Your task to perform on an android device: Go to Yahoo.com Image 0: 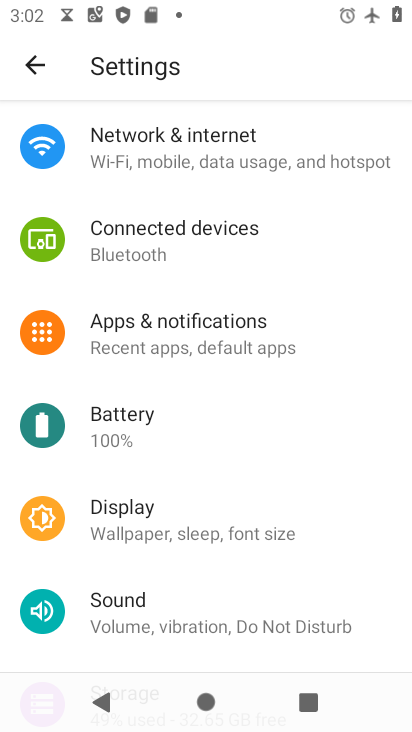
Step 0: press back button
Your task to perform on an android device: Go to Yahoo.com Image 1: 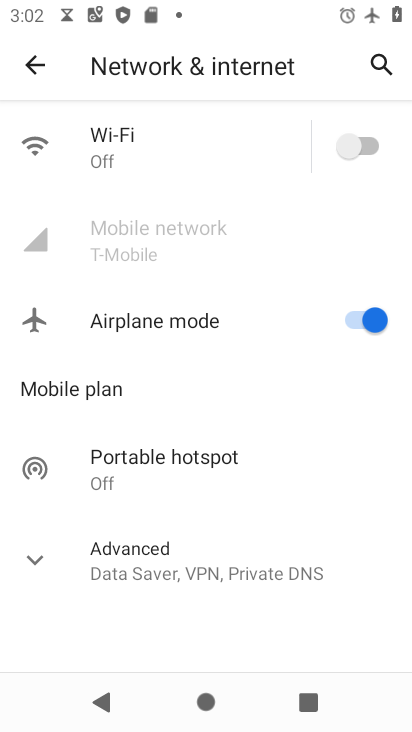
Step 1: press back button
Your task to perform on an android device: Go to Yahoo.com Image 2: 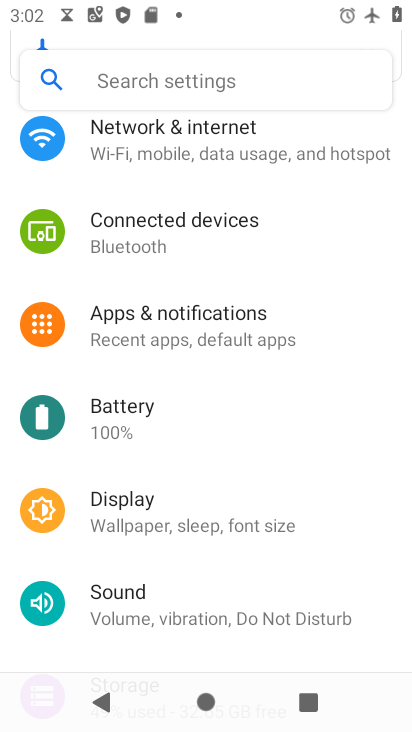
Step 2: press back button
Your task to perform on an android device: Go to Yahoo.com Image 3: 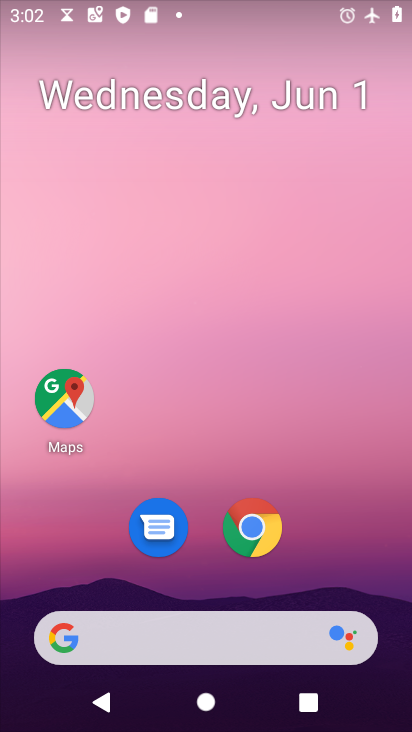
Step 3: drag from (336, 581) to (327, 193)
Your task to perform on an android device: Go to Yahoo.com Image 4: 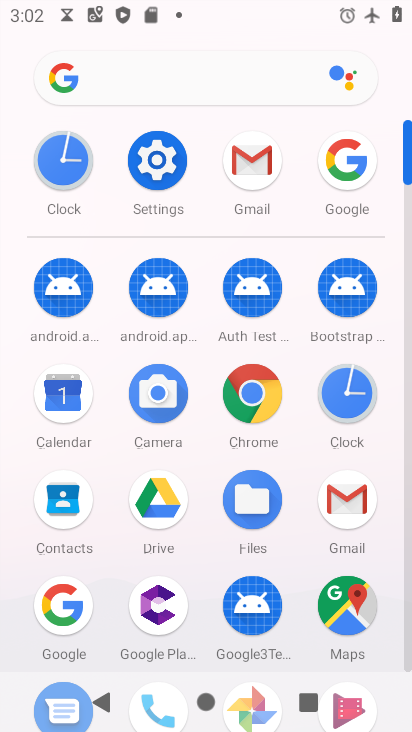
Step 4: click (247, 393)
Your task to perform on an android device: Go to Yahoo.com Image 5: 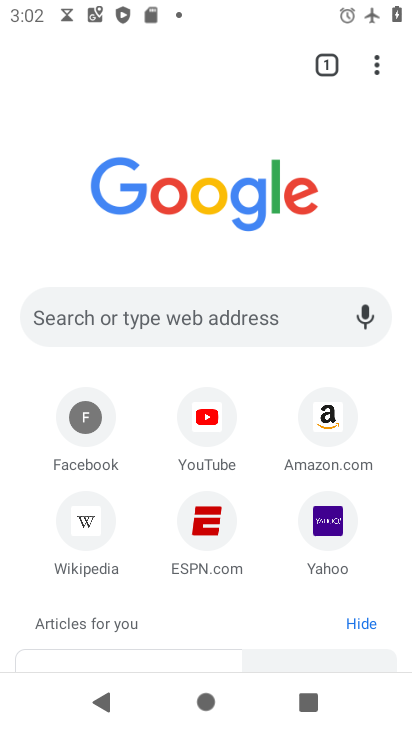
Step 5: click (239, 314)
Your task to perform on an android device: Go to Yahoo.com Image 6: 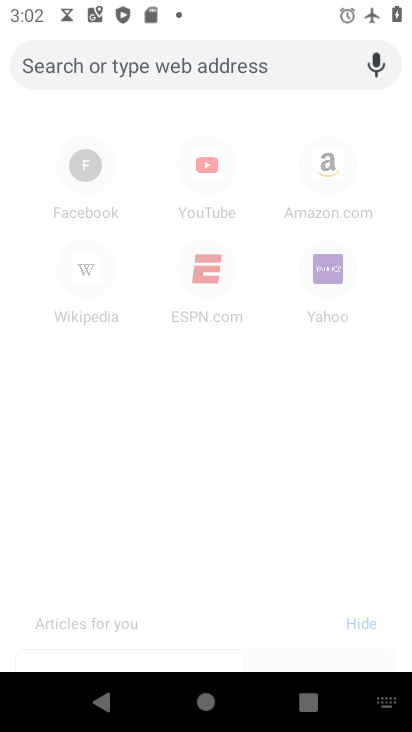
Step 6: click (196, 64)
Your task to perform on an android device: Go to Yahoo.com Image 7: 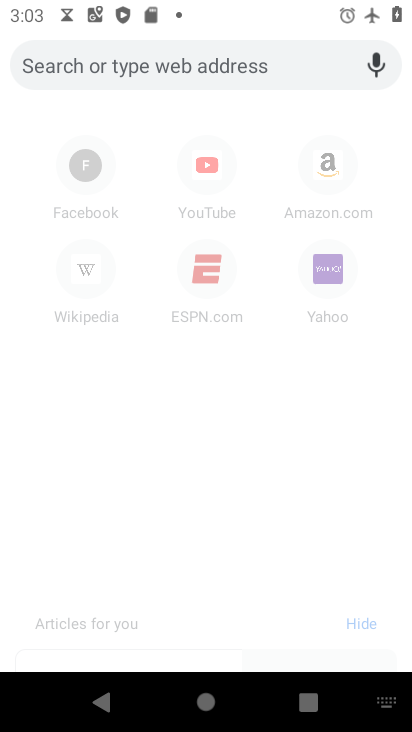
Step 7: type "Yahoo.com"
Your task to perform on an android device: Go to Yahoo.com Image 8: 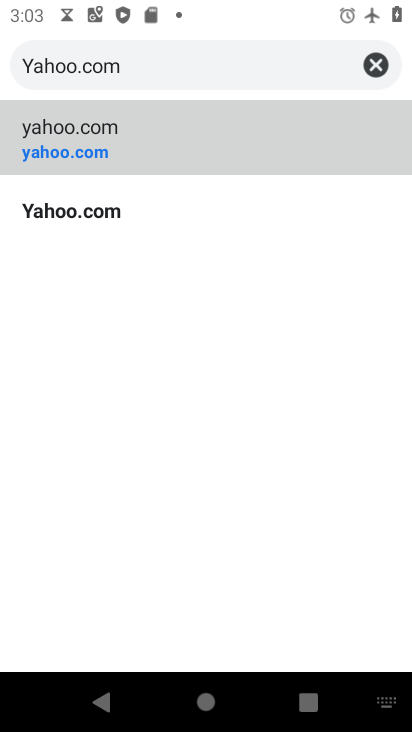
Step 8: click (89, 211)
Your task to perform on an android device: Go to Yahoo.com Image 9: 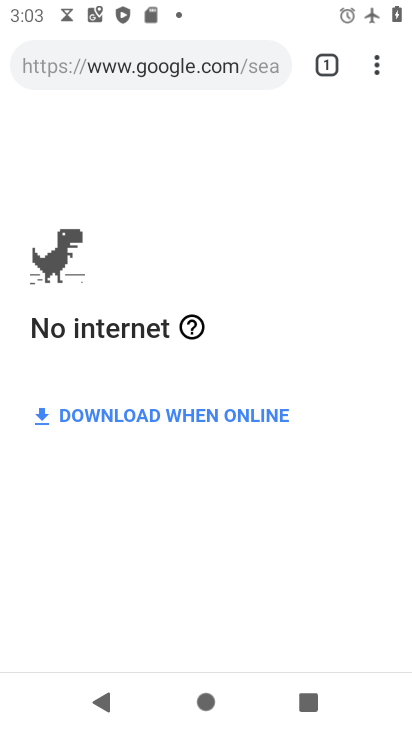
Step 9: task complete